Your task to perform on an android device: turn off airplane mode Image 0: 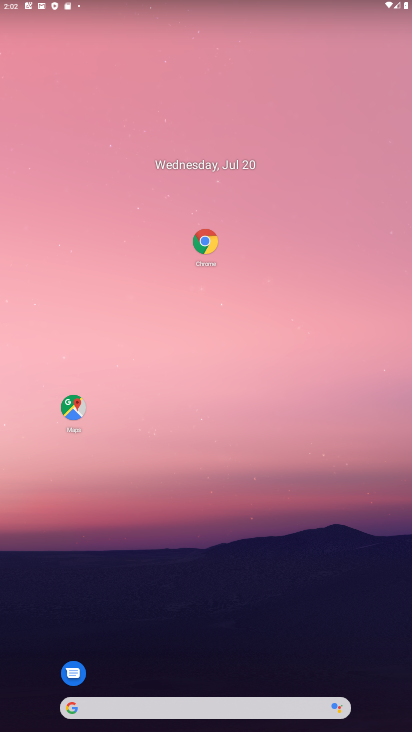
Step 0: drag from (220, 689) to (271, 98)
Your task to perform on an android device: turn off airplane mode Image 1: 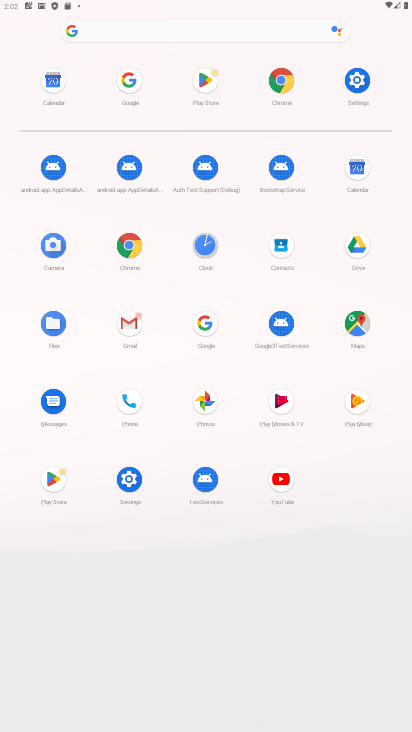
Step 1: click (358, 77)
Your task to perform on an android device: turn off airplane mode Image 2: 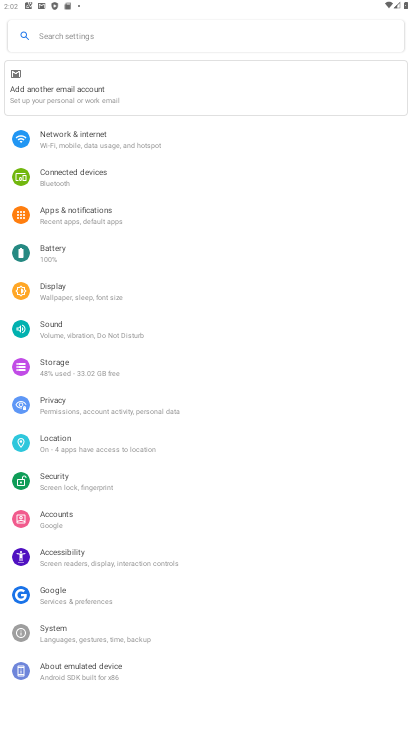
Step 2: click (90, 137)
Your task to perform on an android device: turn off airplane mode Image 3: 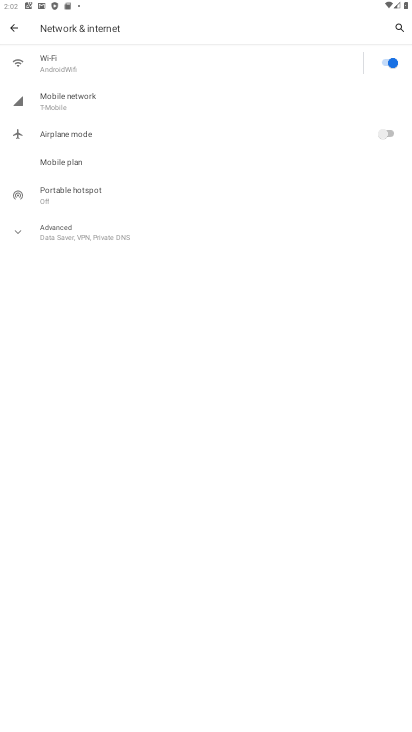
Step 3: task complete